Your task to perform on an android device: set an alarm Image 0: 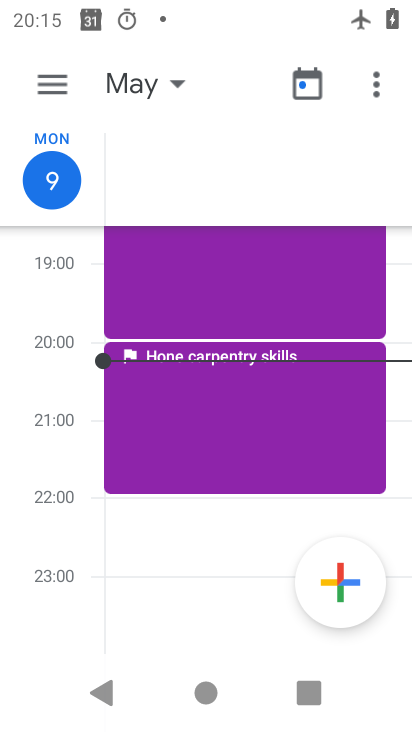
Step 0: press home button
Your task to perform on an android device: set an alarm Image 1: 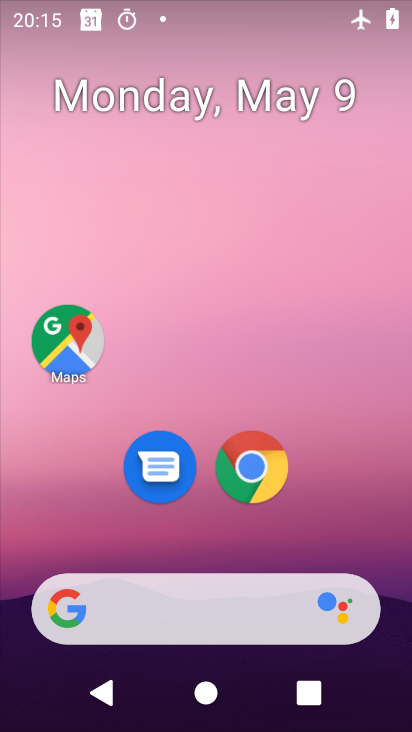
Step 1: drag from (311, 477) to (217, 74)
Your task to perform on an android device: set an alarm Image 2: 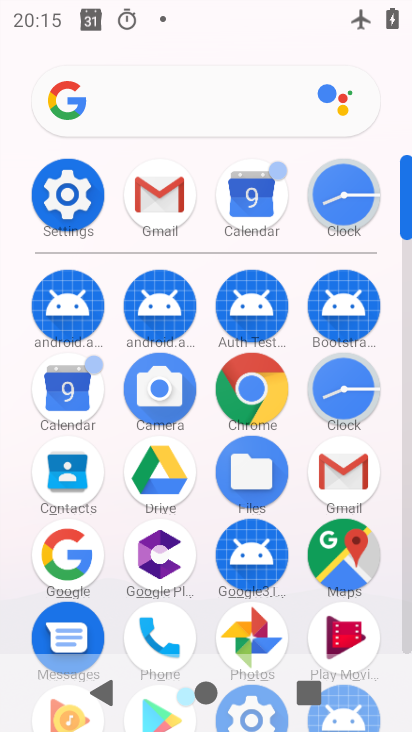
Step 2: click (341, 395)
Your task to perform on an android device: set an alarm Image 3: 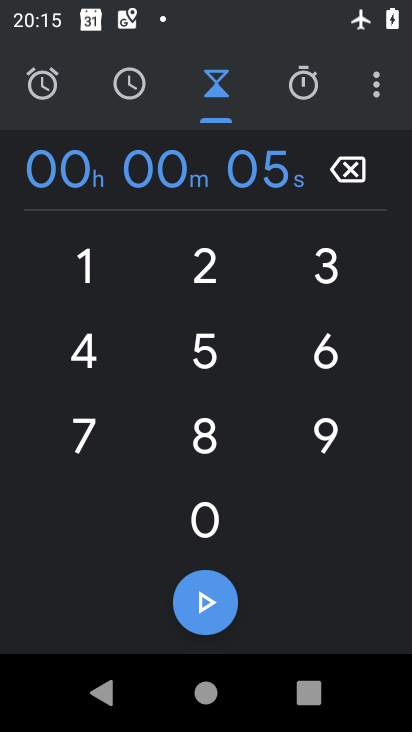
Step 3: click (27, 87)
Your task to perform on an android device: set an alarm Image 4: 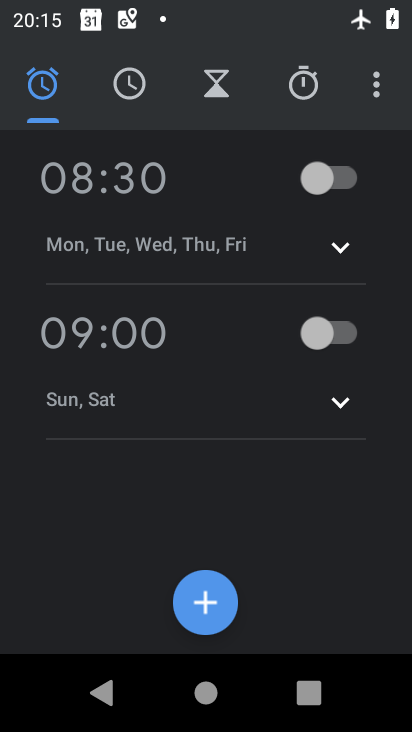
Step 4: click (205, 606)
Your task to perform on an android device: set an alarm Image 5: 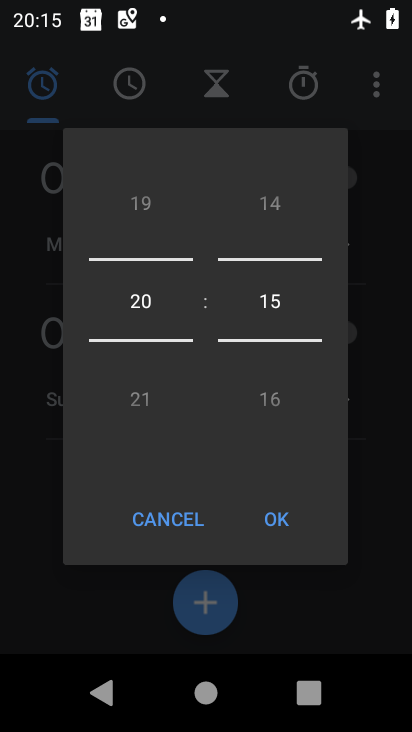
Step 5: click (280, 526)
Your task to perform on an android device: set an alarm Image 6: 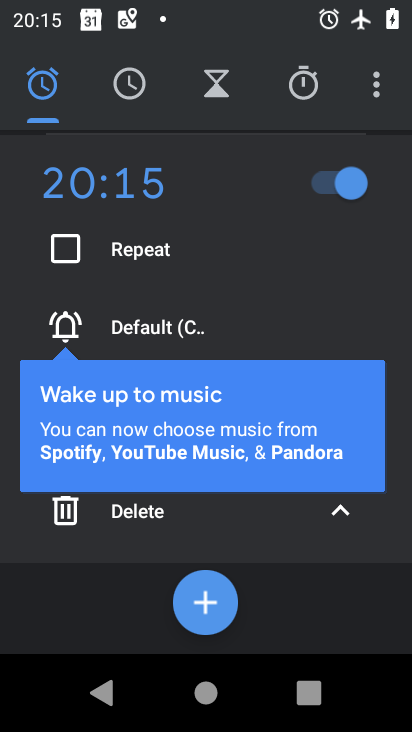
Step 6: task complete